Your task to perform on an android device: turn on improve location accuracy Image 0: 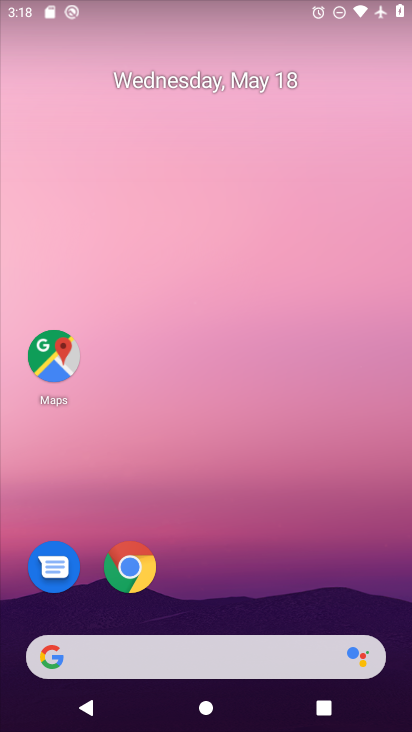
Step 0: drag from (292, 617) to (264, 224)
Your task to perform on an android device: turn on improve location accuracy Image 1: 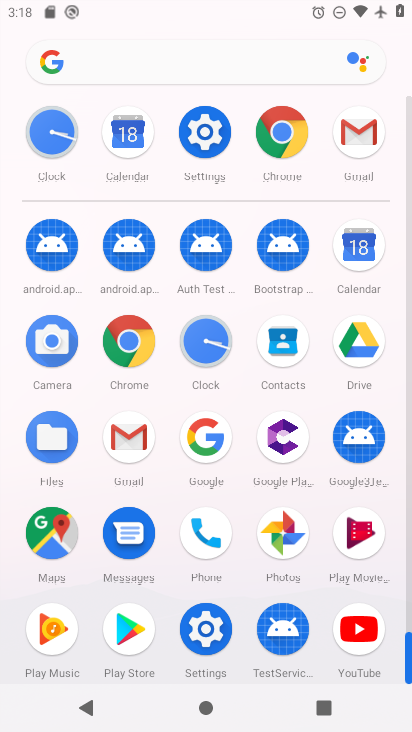
Step 1: click (217, 131)
Your task to perform on an android device: turn on improve location accuracy Image 2: 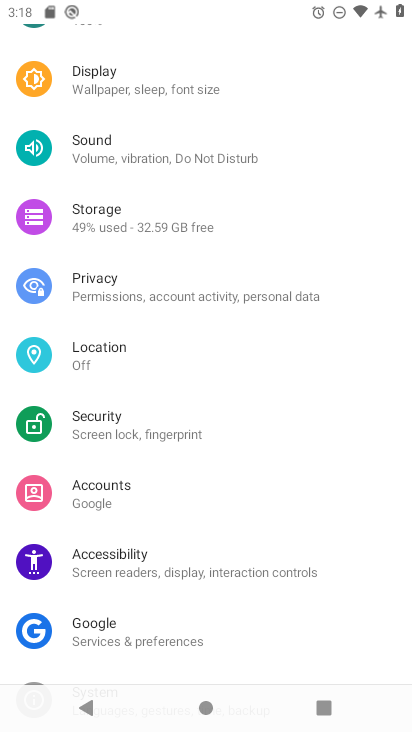
Step 2: click (138, 358)
Your task to perform on an android device: turn on improve location accuracy Image 3: 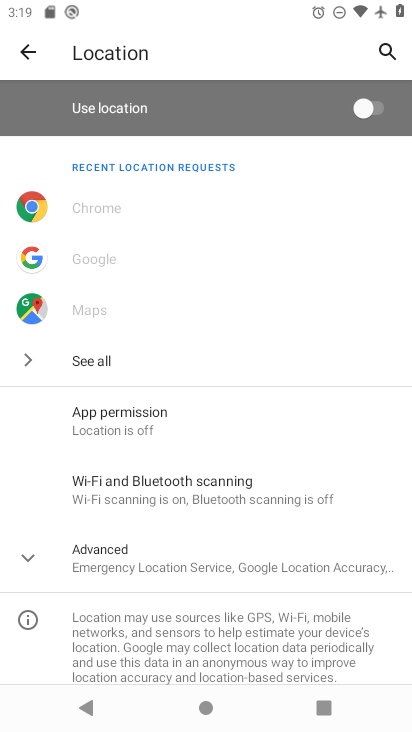
Step 3: click (187, 565)
Your task to perform on an android device: turn on improve location accuracy Image 4: 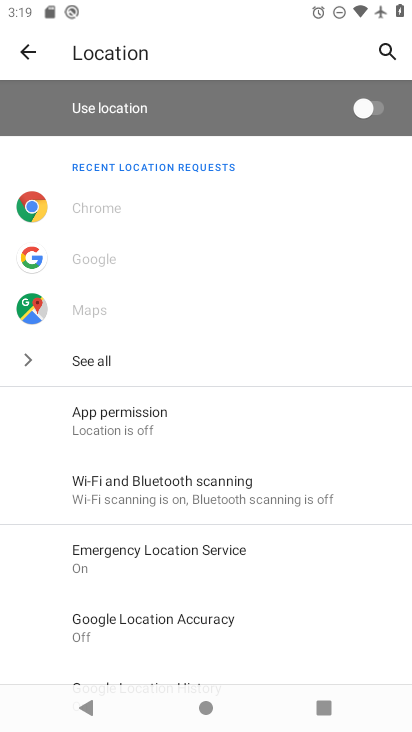
Step 4: drag from (196, 628) to (289, 384)
Your task to perform on an android device: turn on improve location accuracy Image 5: 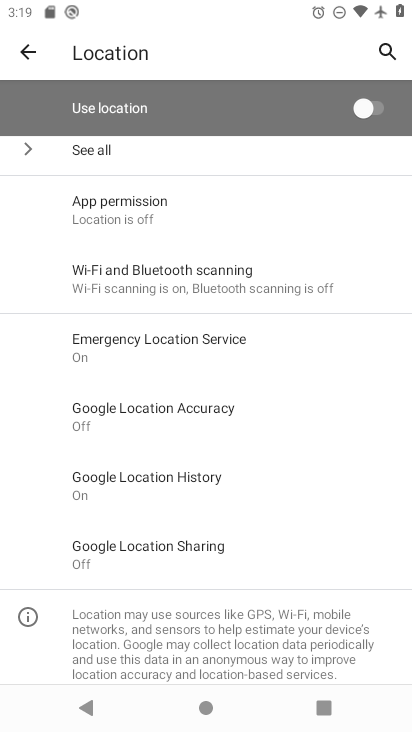
Step 5: click (190, 410)
Your task to perform on an android device: turn on improve location accuracy Image 6: 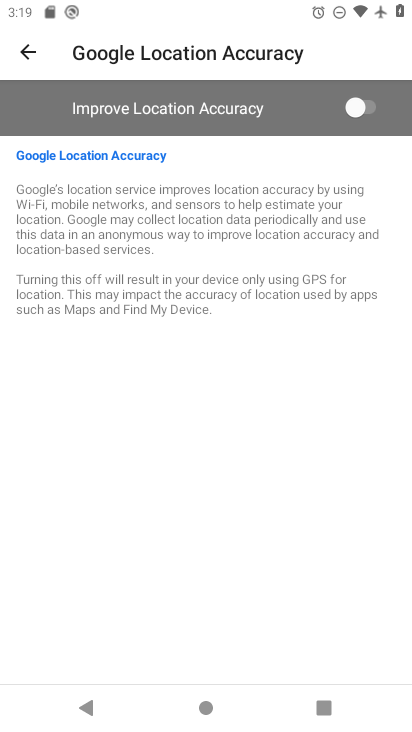
Step 6: click (364, 108)
Your task to perform on an android device: turn on improve location accuracy Image 7: 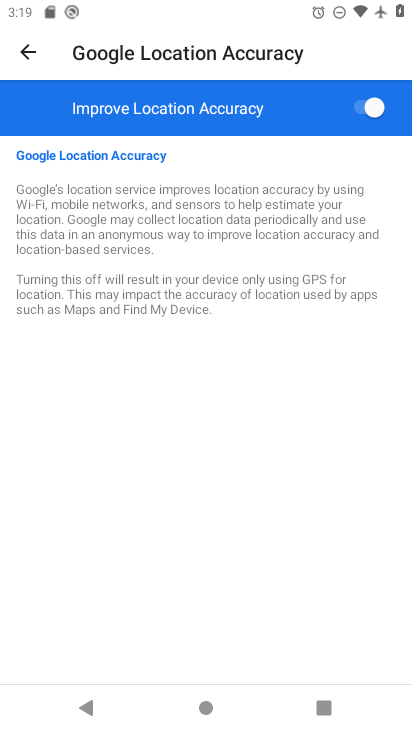
Step 7: task complete